Your task to perform on an android device: turn off javascript in the chrome app Image 0: 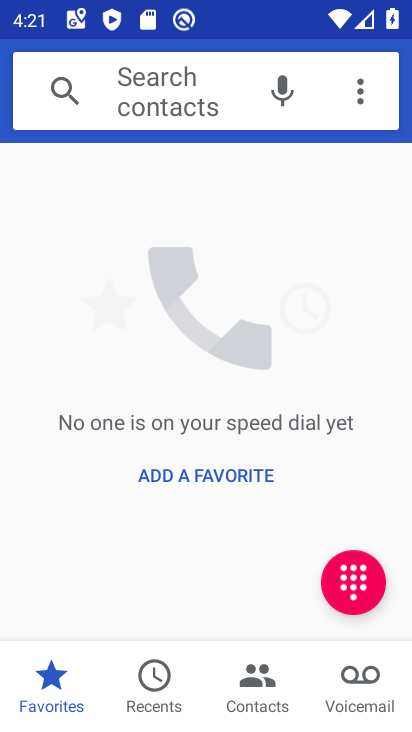
Step 0: press home button
Your task to perform on an android device: turn off javascript in the chrome app Image 1: 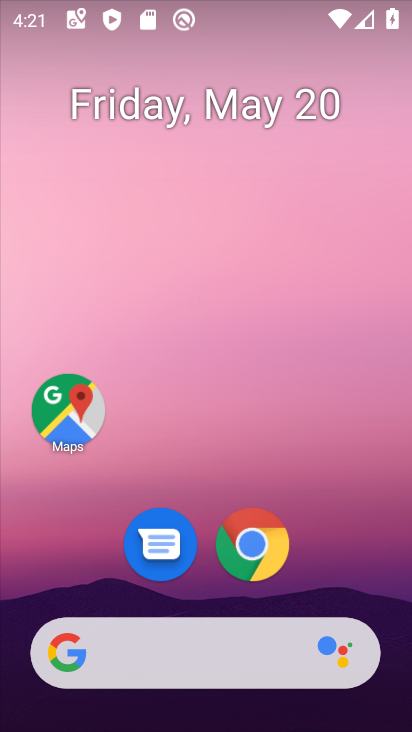
Step 1: click (259, 543)
Your task to perform on an android device: turn off javascript in the chrome app Image 2: 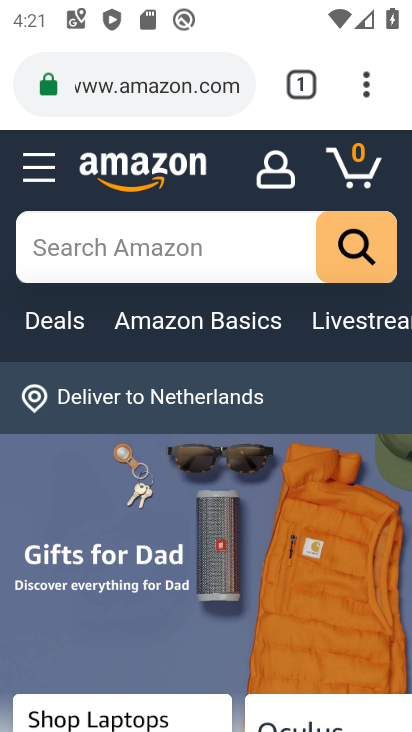
Step 2: click (365, 86)
Your task to perform on an android device: turn off javascript in the chrome app Image 3: 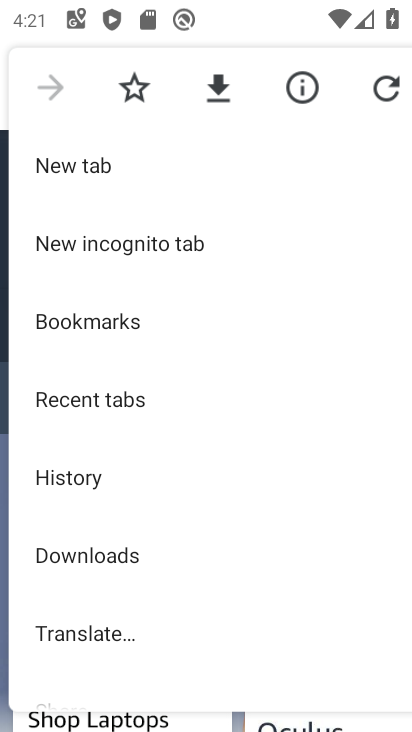
Step 3: drag from (142, 590) to (152, 253)
Your task to perform on an android device: turn off javascript in the chrome app Image 4: 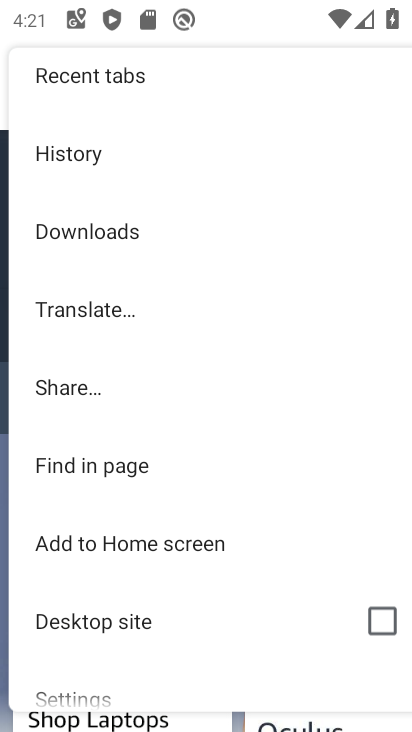
Step 4: drag from (190, 613) to (192, 288)
Your task to perform on an android device: turn off javascript in the chrome app Image 5: 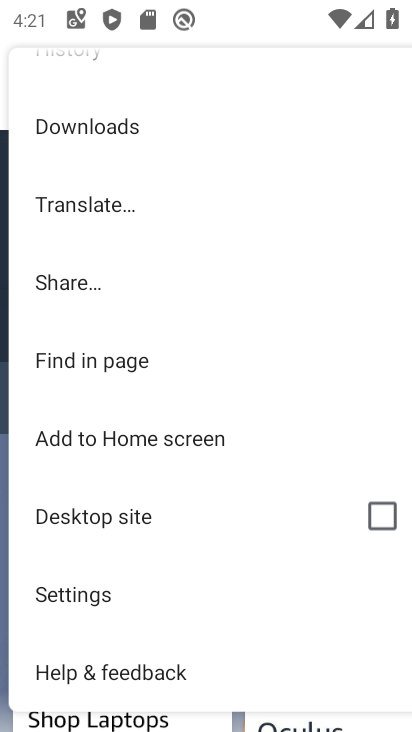
Step 5: click (76, 599)
Your task to perform on an android device: turn off javascript in the chrome app Image 6: 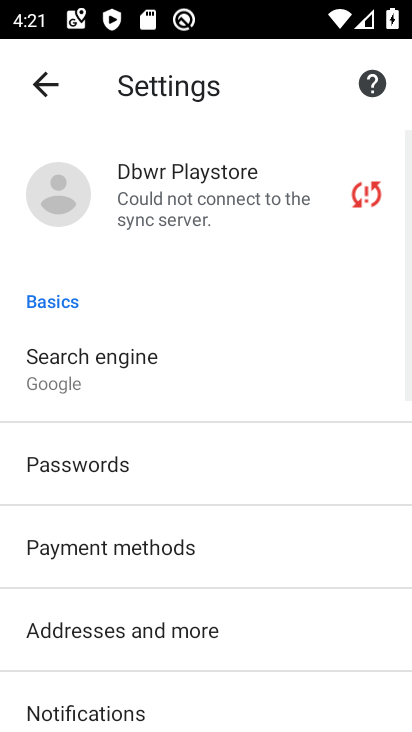
Step 6: drag from (291, 593) to (287, 190)
Your task to perform on an android device: turn off javascript in the chrome app Image 7: 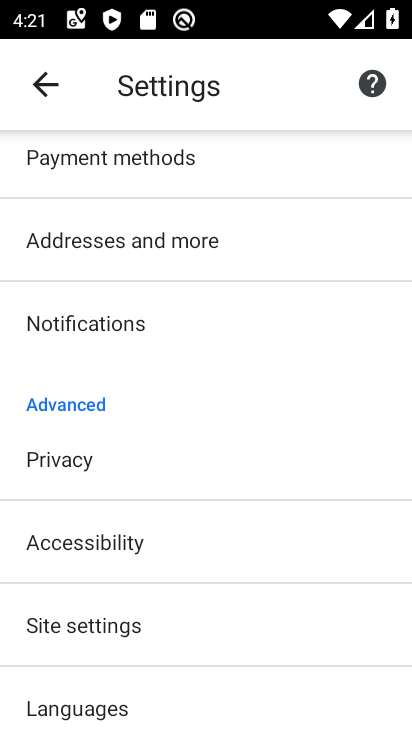
Step 7: click (106, 622)
Your task to perform on an android device: turn off javascript in the chrome app Image 8: 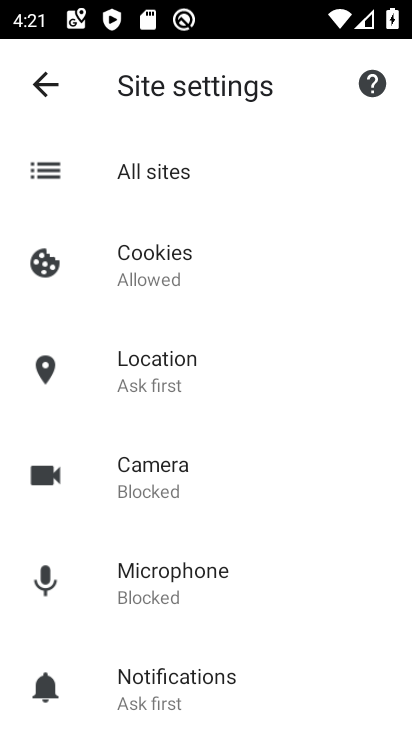
Step 8: drag from (246, 530) to (260, 272)
Your task to perform on an android device: turn off javascript in the chrome app Image 9: 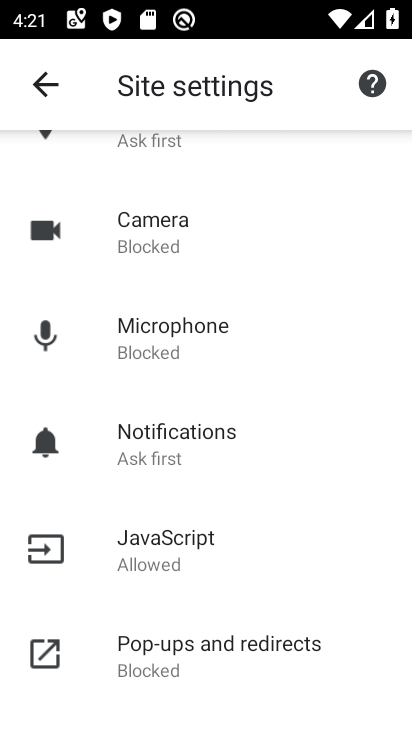
Step 9: click (147, 543)
Your task to perform on an android device: turn off javascript in the chrome app Image 10: 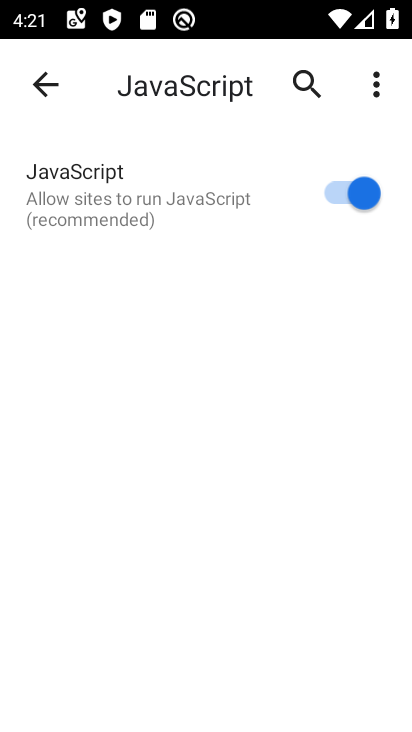
Step 10: click (364, 196)
Your task to perform on an android device: turn off javascript in the chrome app Image 11: 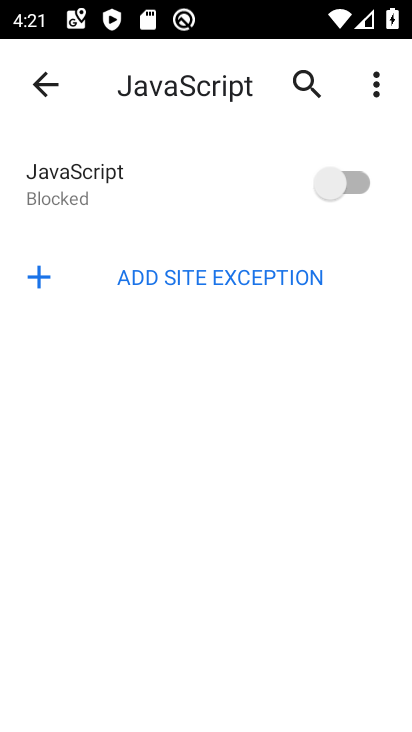
Step 11: task complete